Your task to perform on an android device: Open the stopwatch Image 0: 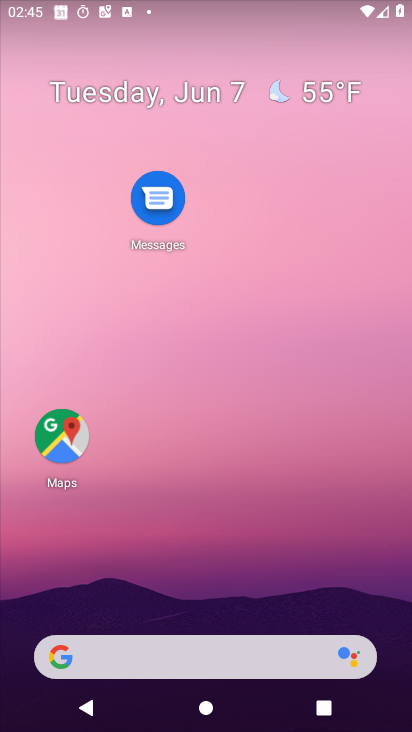
Step 0: drag from (188, 599) to (178, 7)
Your task to perform on an android device: Open the stopwatch Image 1: 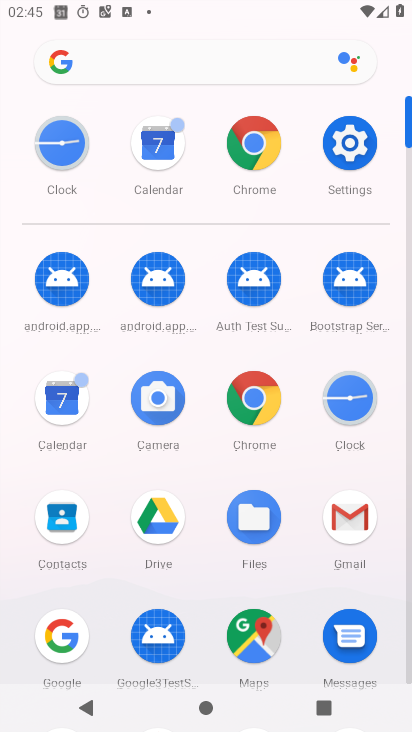
Step 1: click (348, 403)
Your task to perform on an android device: Open the stopwatch Image 2: 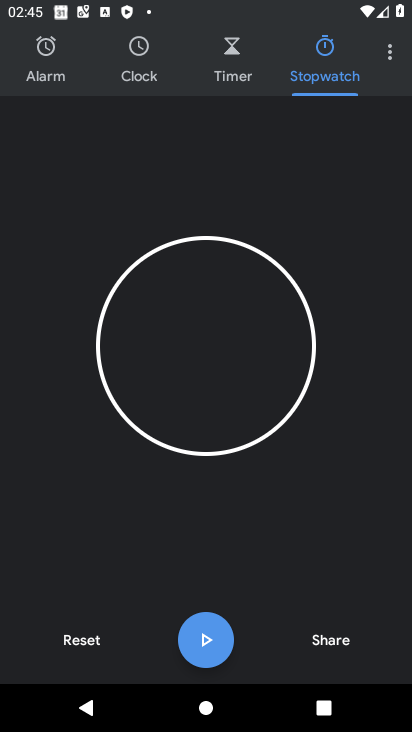
Step 2: task complete